Your task to perform on an android device: empty trash in google photos Image 0: 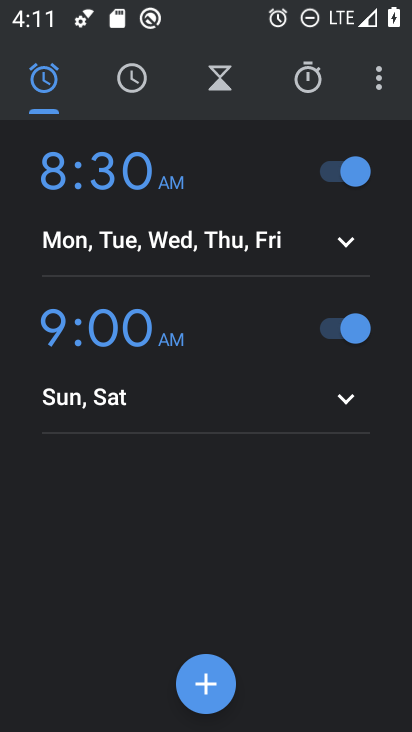
Step 0: press back button
Your task to perform on an android device: empty trash in google photos Image 1: 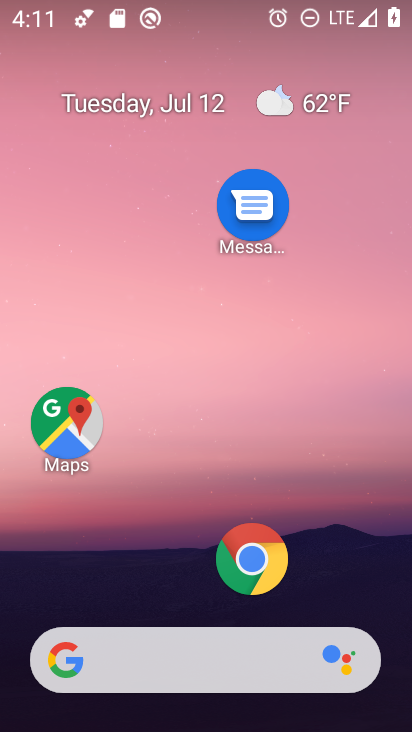
Step 1: drag from (163, 594) to (217, 6)
Your task to perform on an android device: empty trash in google photos Image 2: 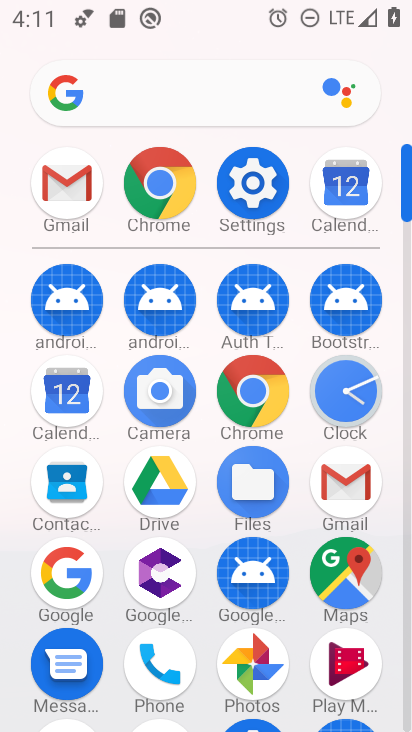
Step 2: click (245, 652)
Your task to perform on an android device: empty trash in google photos Image 3: 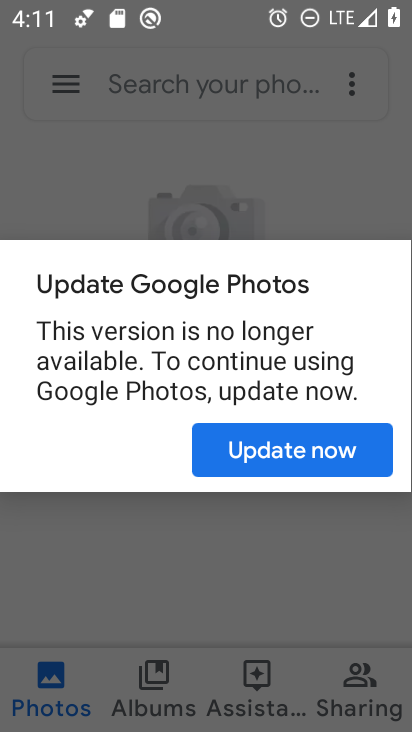
Step 3: press back button
Your task to perform on an android device: empty trash in google photos Image 4: 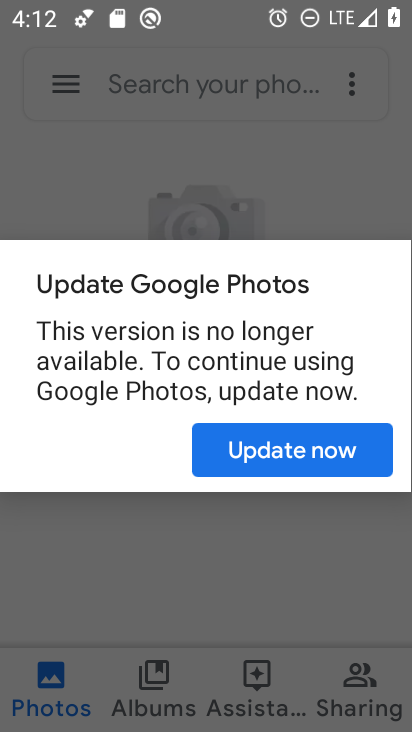
Step 4: press home button
Your task to perform on an android device: empty trash in google photos Image 5: 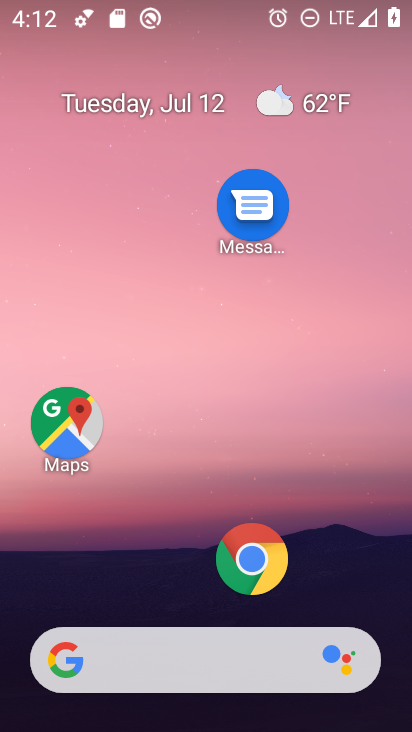
Step 5: drag from (150, 572) to (273, 24)
Your task to perform on an android device: empty trash in google photos Image 6: 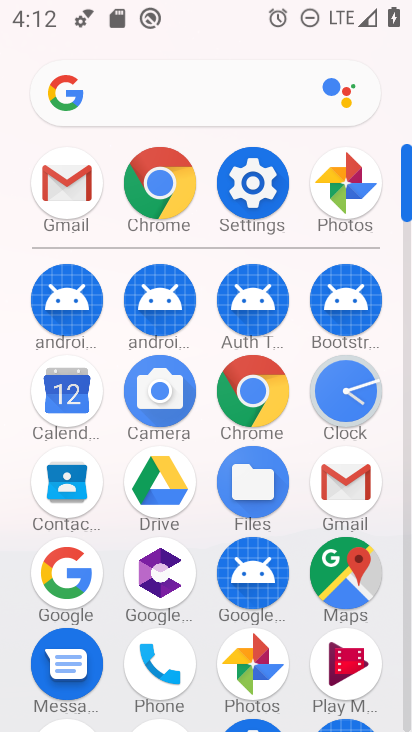
Step 6: click (264, 670)
Your task to perform on an android device: empty trash in google photos Image 7: 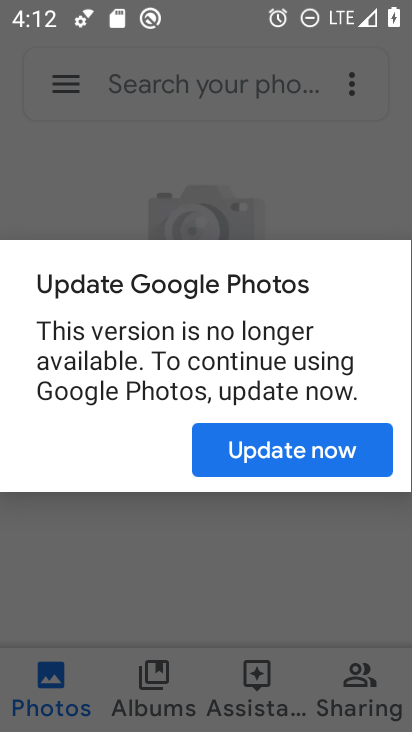
Step 7: click (257, 455)
Your task to perform on an android device: empty trash in google photos Image 8: 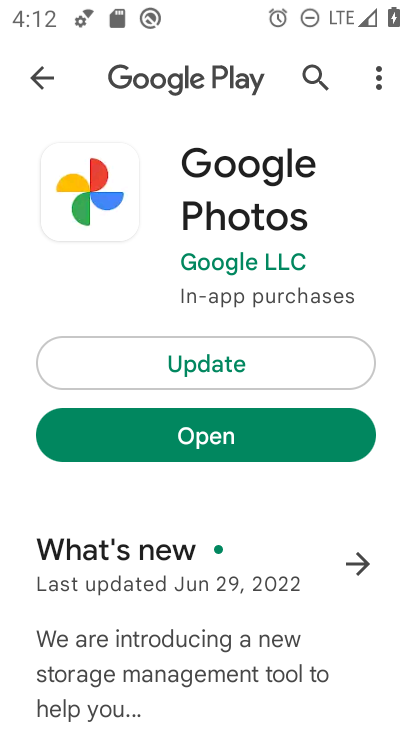
Step 8: click (198, 436)
Your task to perform on an android device: empty trash in google photos Image 9: 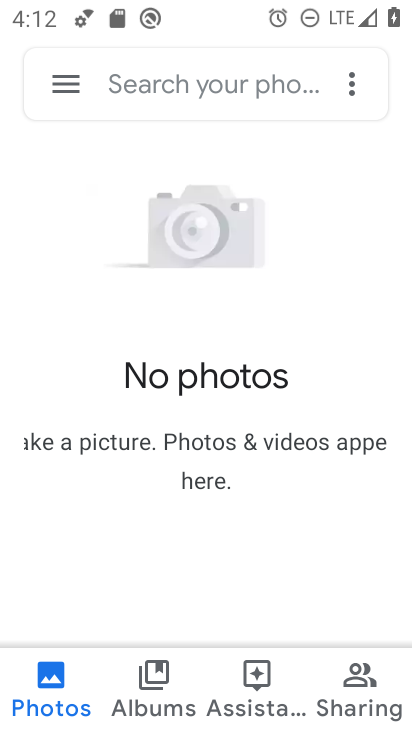
Step 9: click (54, 78)
Your task to perform on an android device: empty trash in google photos Image 10: 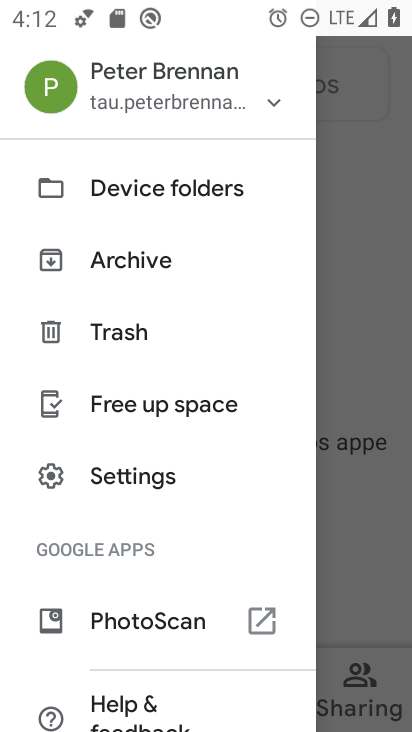
Step 10: click (78, 333)
Your task to perform on an android device: empty trash in google photos Image 11: 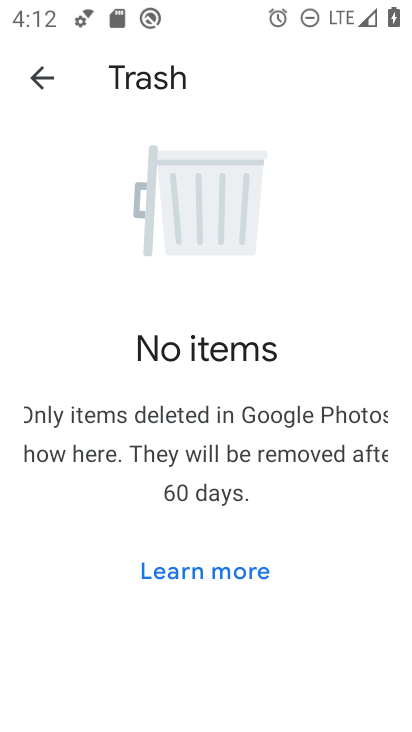
Step 11: task complete